Your task to perform on an android device: turn off priority inbox in the gmail app Image 0: 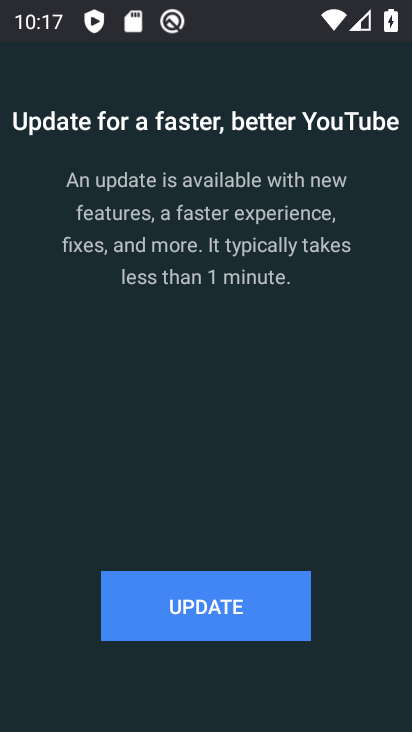
Step 0: press home button
Your task to perform on an android device: turn off priority inbox in the gmail app Image 1: 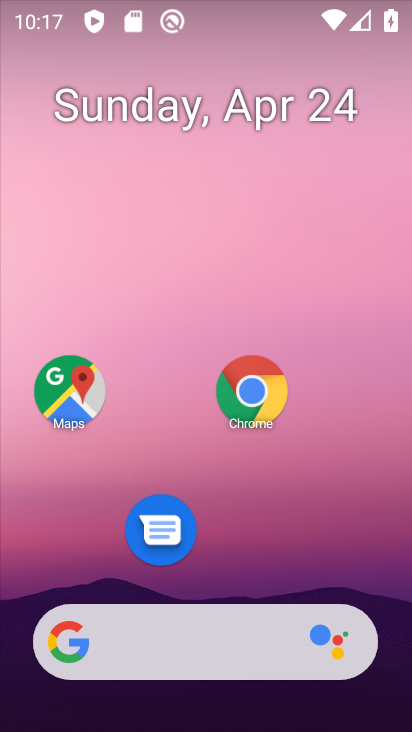
Step 1: drag from (225, 561) to (225, 15)
Your task to perform on an android device: turn off priority inbox in the gmail app Image 2: 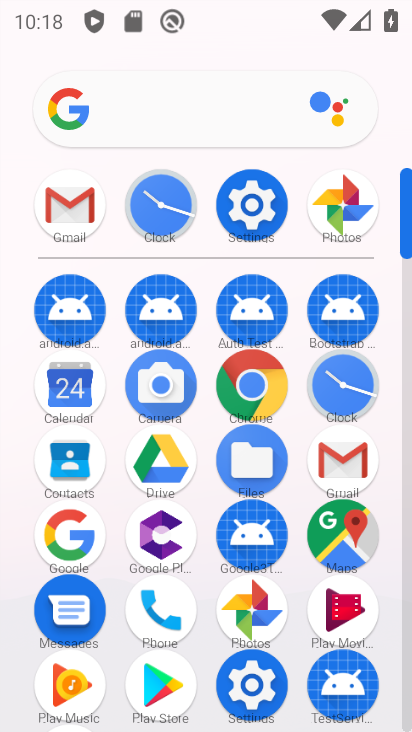
Step 2: click (80, 222)
Your task to perform on an android device: turn off priority inbox in the gmail app Image 3: 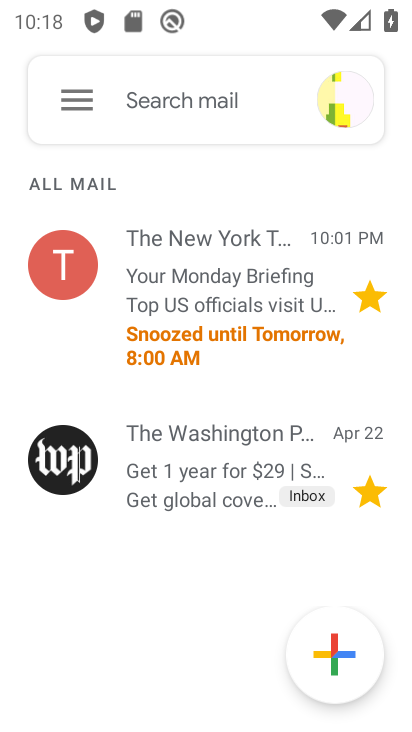
Step 3: click (56, 107)
Your task to perform on an android device: turn off priority inbox in the gmail app Image 4: 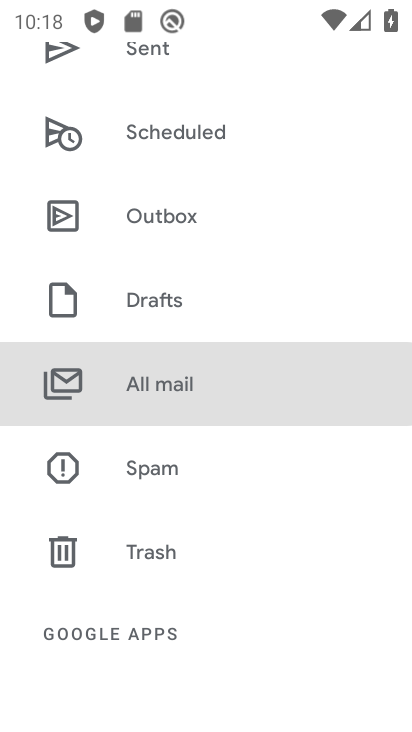
Step 4: drag from (119, 589) to (201, 119)
Your task to perform on an android device: turn off priority inbox in the gmail app Image 5: 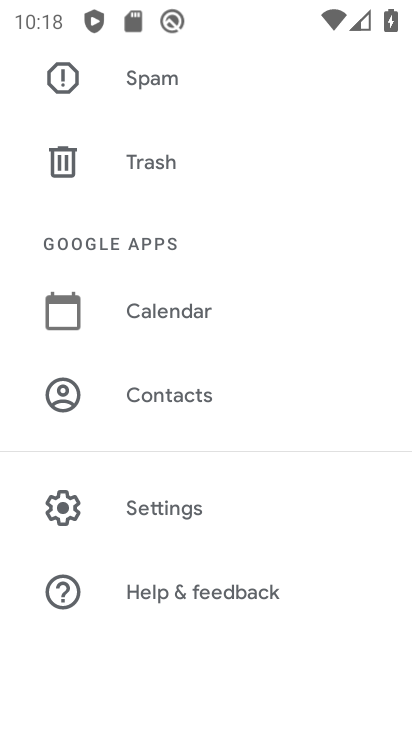
Step 5: click (115, 516)
Your task to perform on an android device: turn off priority inbox in the gmail app Image 6: 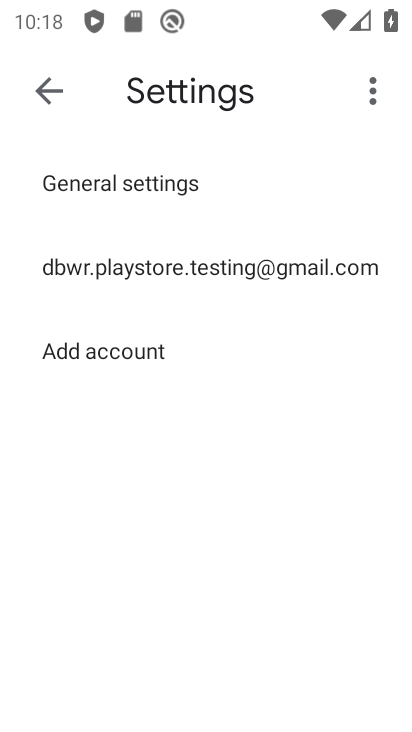
Step 6: click (216, 275)
Your task to perform on an android device: turn off priority inbox in the gmail app Image 7: 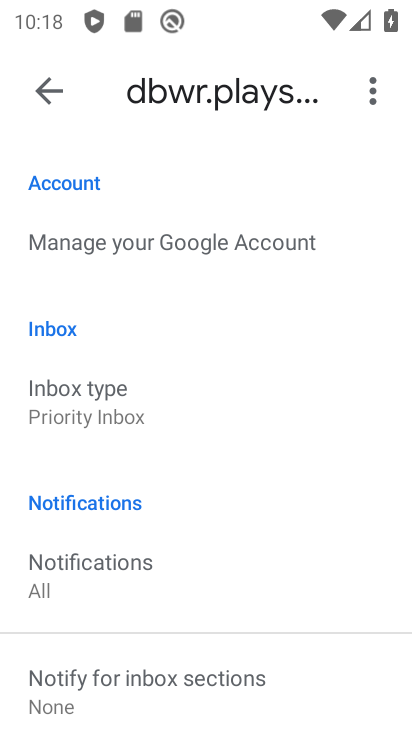
Step 7: click (118, 395)
Your task to perform on an android device: turn off priority inbox in the gmail app Image 8: 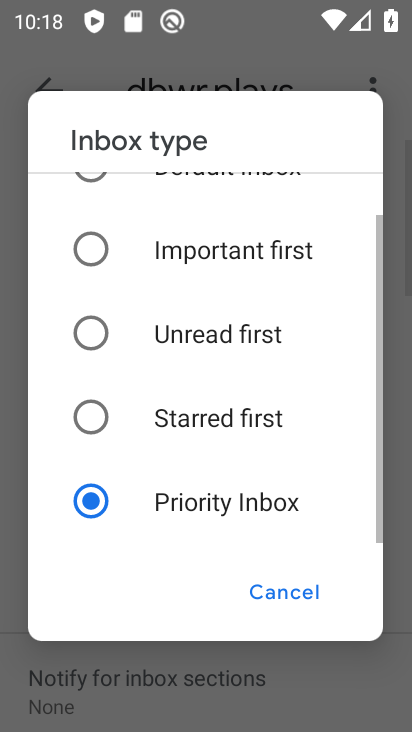
Step 8: click (118, 395)
Your task to perform on an android device: turn off priority inbox in the gmail app Image 9: 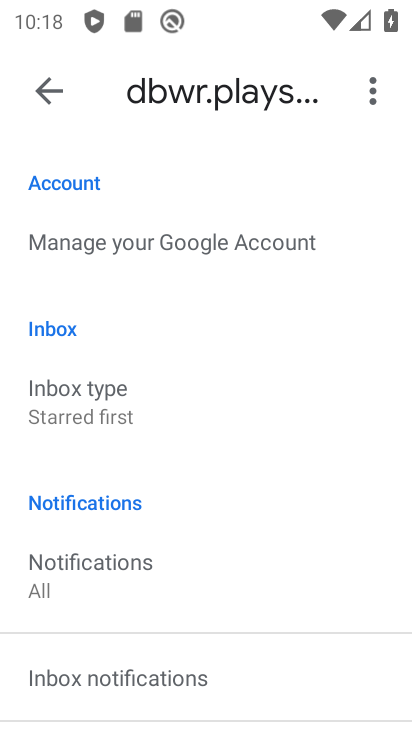
Step 9: task complete